Your task to perform on an android device: find photos in the google photos app Image 0: 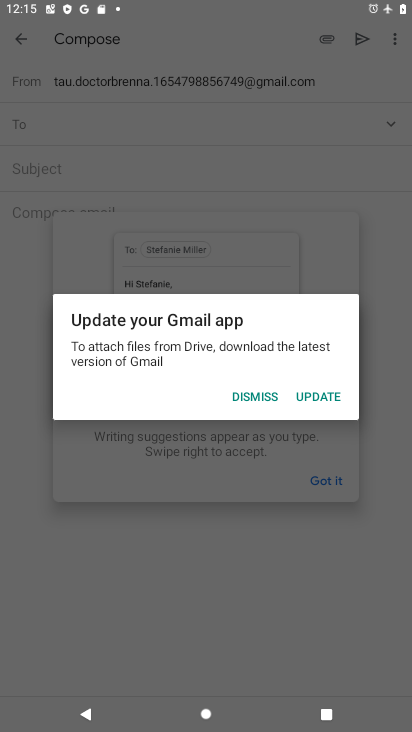
Step 0: press home button
Your task to perform on an android device: find photos in the google photos app Image 1: 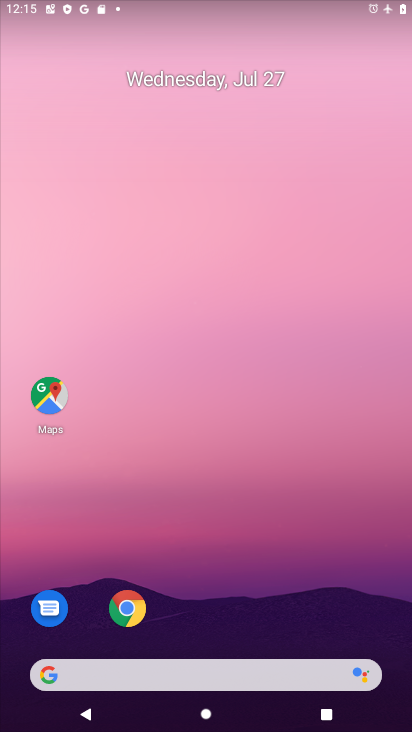
Step 1: drag from (186, 675) to (206, 95)
Your task to perform on an android device: find photos in the google photos app Image 2: 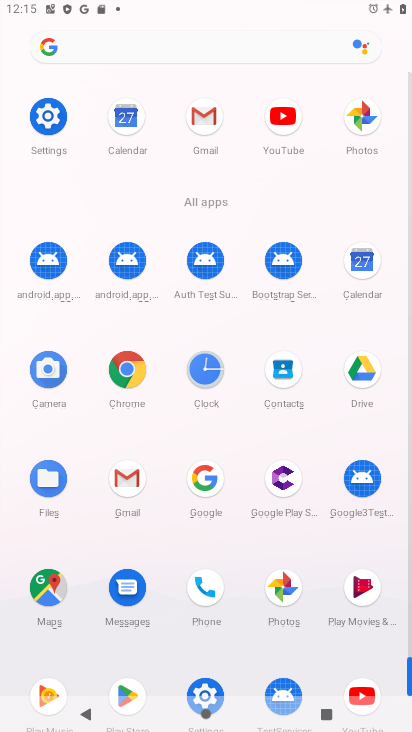
Step 2: click (283, 589)
Your task to perform on an android device: find photos in the google photos app Image 3: 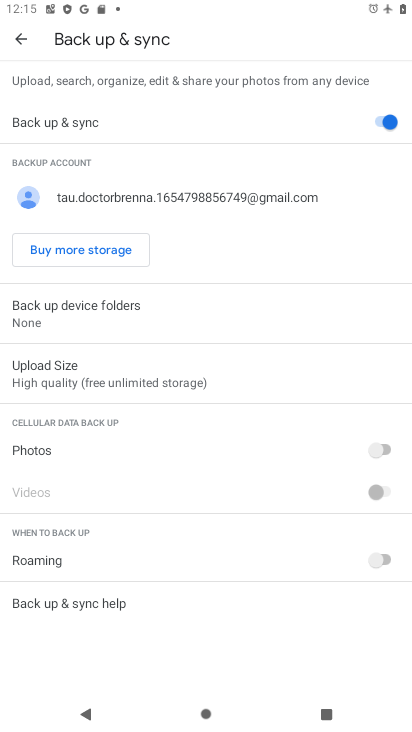
Step 3: press back button
Your task to perform on an android device: find photos in the google photos app Image 4: 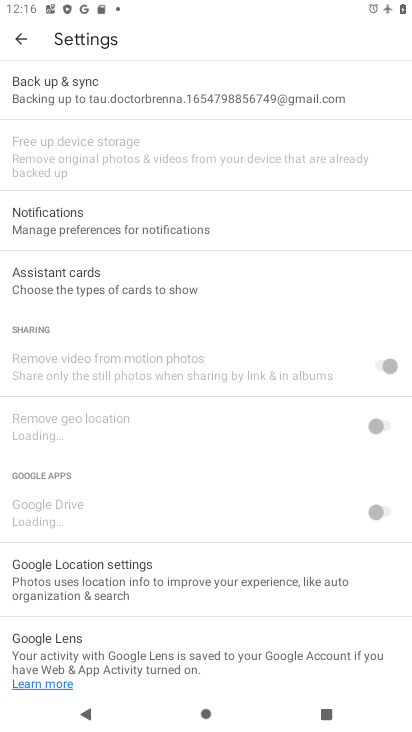
Step 4: press back button
Your task to perform on an android device: find photos in the google photos app Image 5: 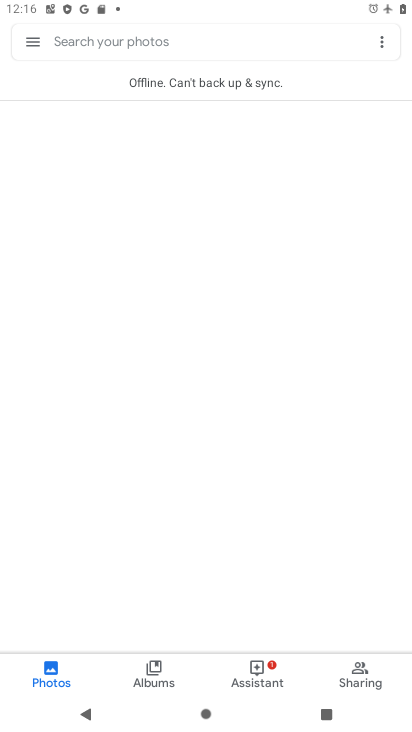
Step 5: click (149, 657)
Your task to perform on an android device: find photos in the google photos app Image 6: 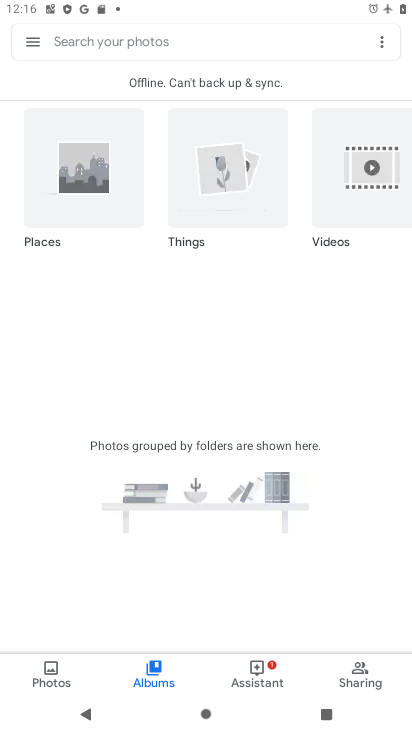
Step 6: click (62, 679)
Your task to perform on an android device: find photos in the google photos app Image 7: 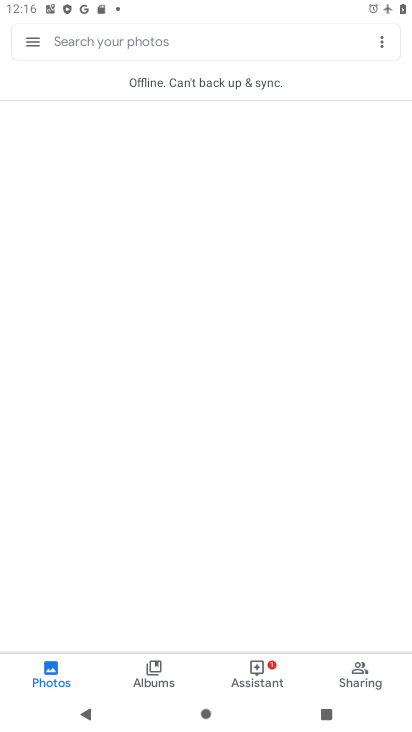
Step 7: task complete